Your task to perform on an android device: toggle translation in the chrome app Image 0: 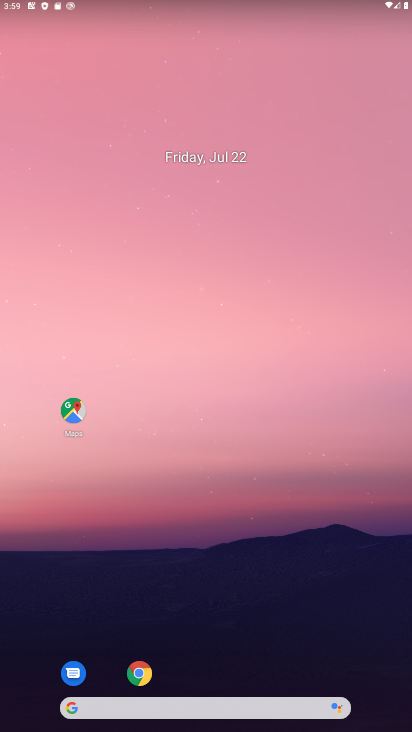
Step 0: press home button
Your task to perform on an android device: toggle translation in the chrome app Image 1: 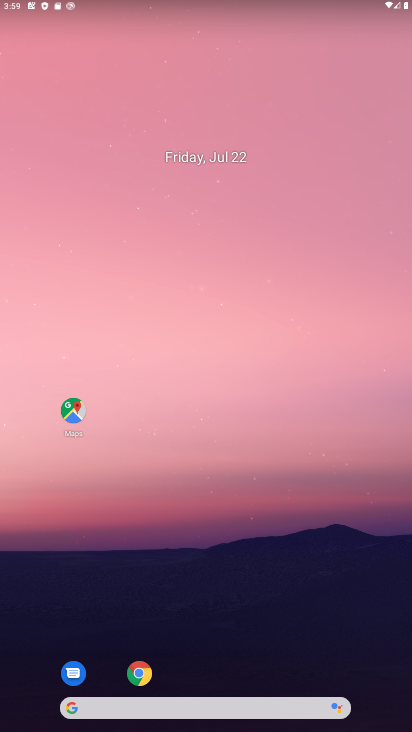
Step 1: click (136, 669)
Your task to perform on an android device: toggle translation in the chrome app Image 2: 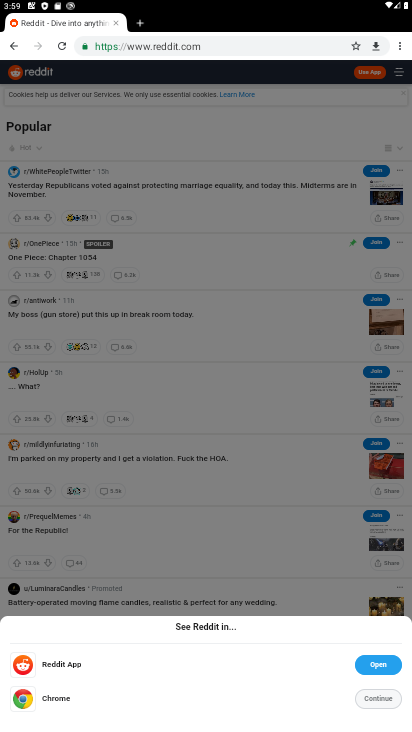
Step 2: click (374, 695)
Your task to perform on an android device: toggle translation in the chrome app Image 3: 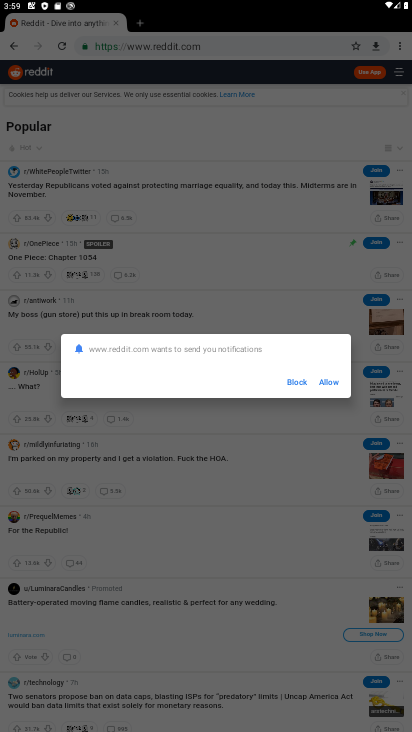
Step 3: click (323, 381)
Your task to perform on an android device: toggle translation in the chrome app Image 4: 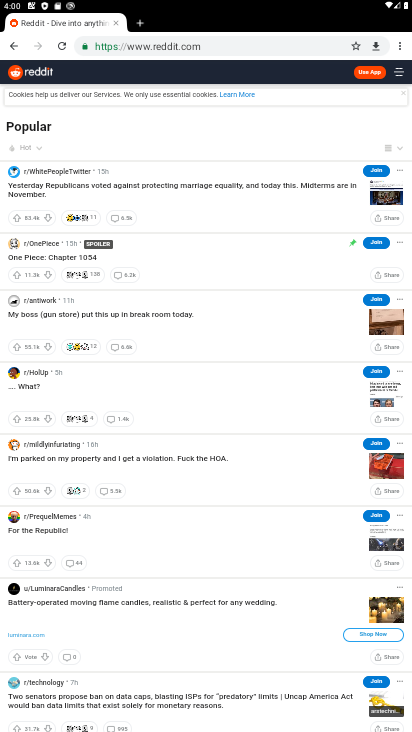
Step 4: click (398, 43)
Your task to perform on an android device: toggle translation in the chrome app Image 5: 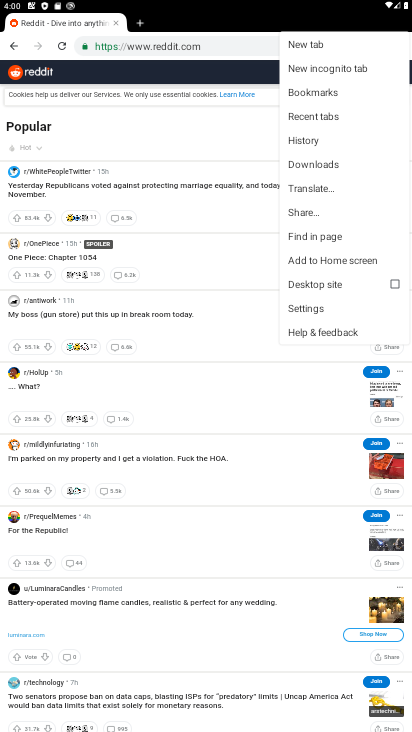
Step 5: click (331, 303)
Your task to perform on an android device: toggle translation in the chrome app Image 6: 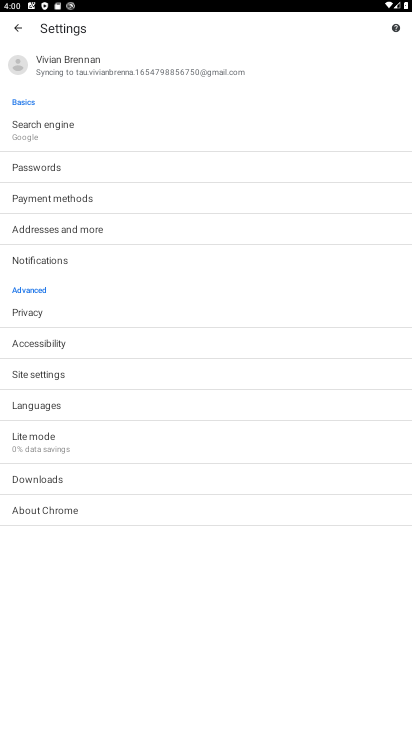
Step 6: click (73, 407)
Your task to perform on an android device: toggle translation in the chrome app Image 7: 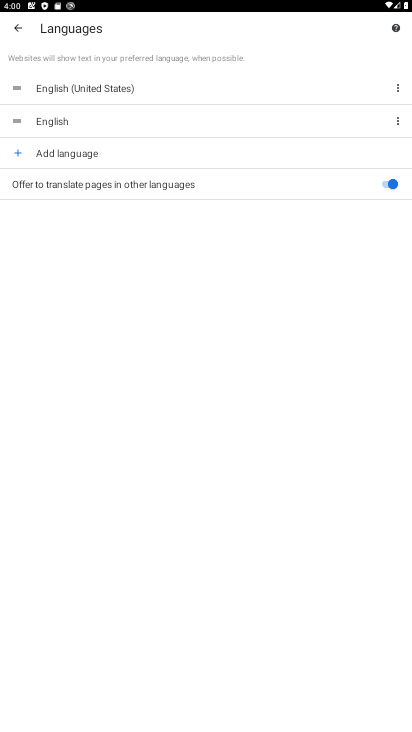
Step 7: click (383, 183)
Your task to perform on an android device: toggle translation in the chrome app Image 8: 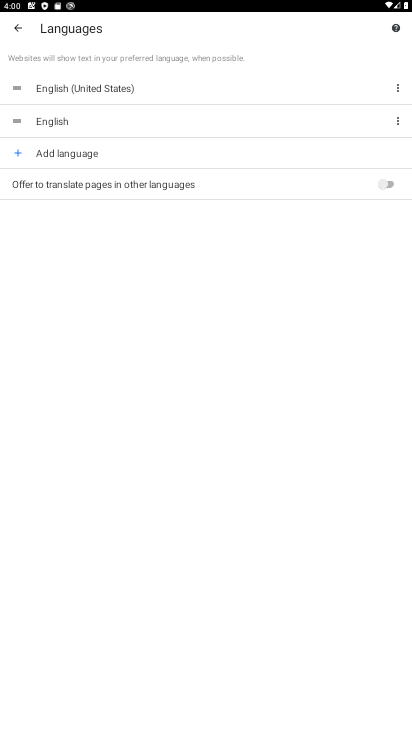
Step 8: task complete